Your task to perform on an android device: Open network settings Image 0: 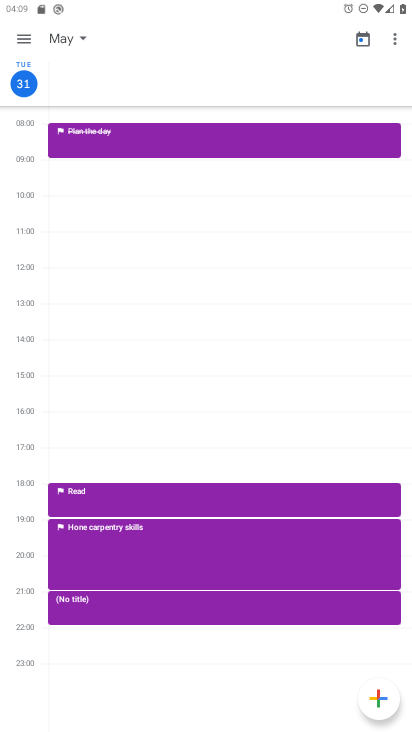
Step 0: press home button
Your task to perform on an android device: Open network settings Image 1: 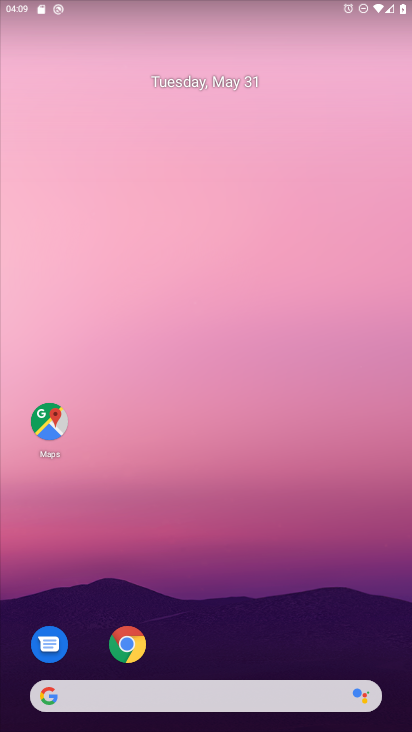
Step 1: drag from (231, 493) to (189, 129)
Your task to perform on an android device: Open network settings Image 2: 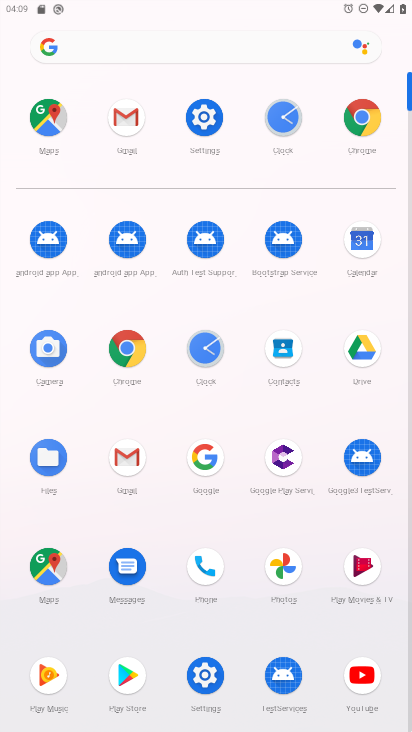
Step 2: click (196, 122)
Your task to perform on an android device: Open network settings Image 3: 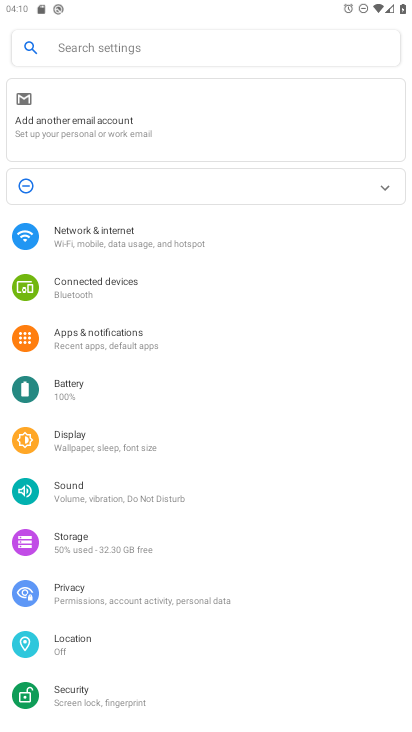
Step 3: click (104, 236)
Your task to perform on an android device: Open network settings Image 4: 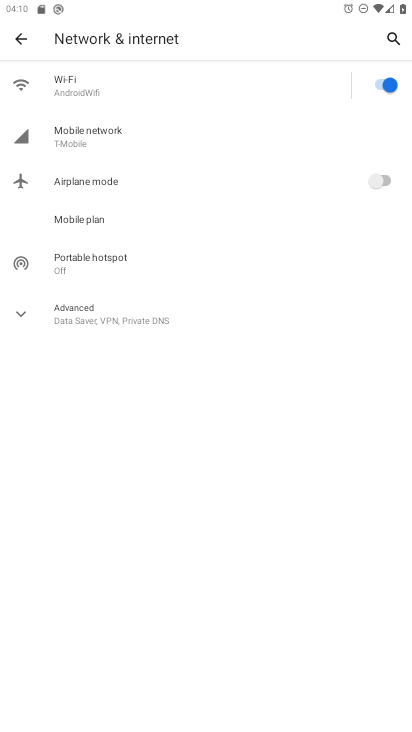
Step 4: click (59, 307)
Your task to perform on an android device: Open network settings Image 5: 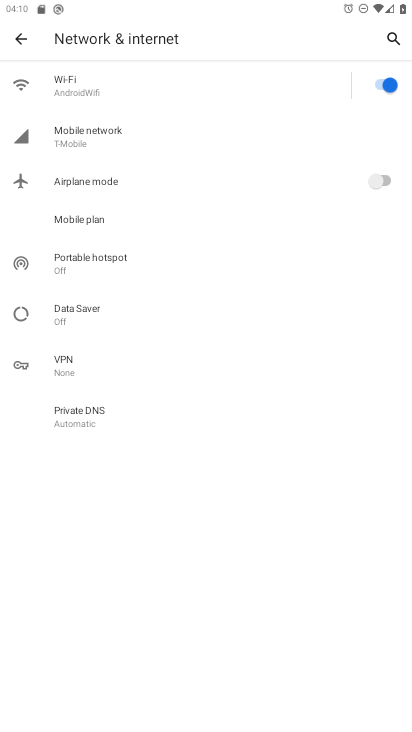
Step 5: task complete